Your task to perform on an android device: toggle location history Image 0: 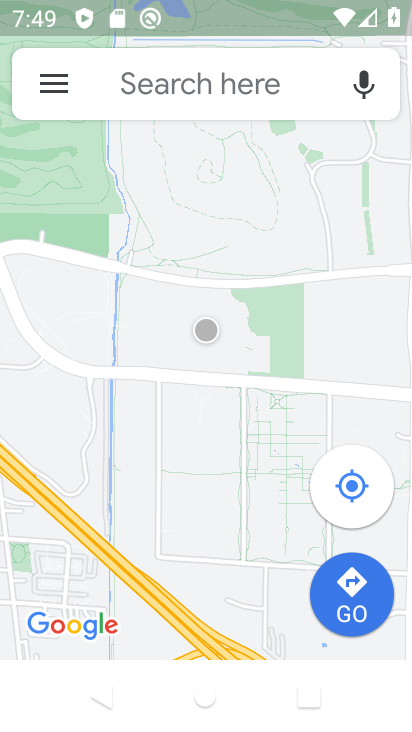
Step 0: press home button
Your task to perform on an android device: toggle location history Image 1: 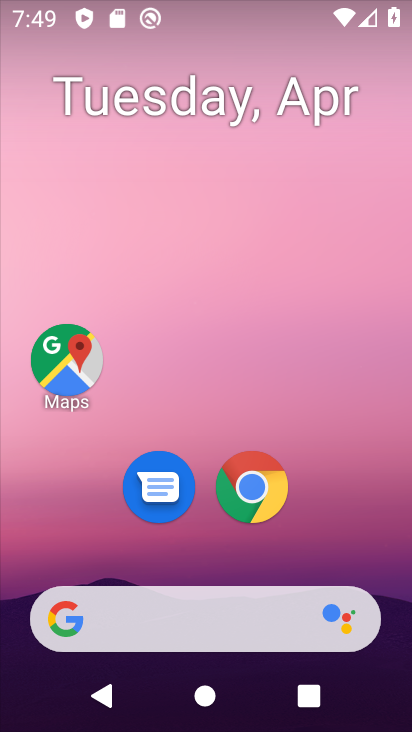
Step 1: drag from (193, 415) to (196, 235)
Your task to perform on an android device: toggle location history Image 2: 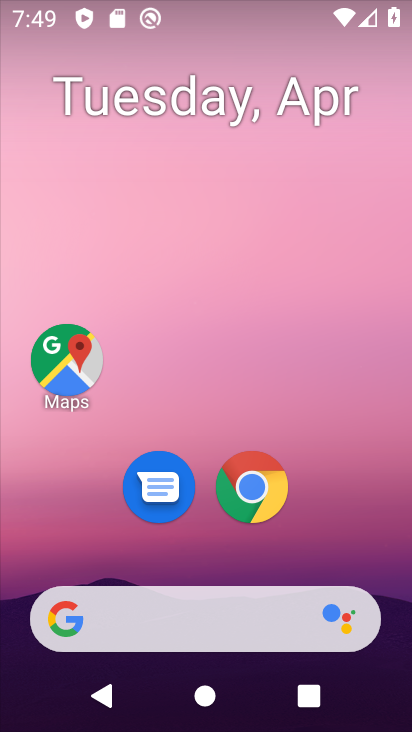
Step 2: drag from (202, 585) to (201, 112)
Your task to perform on an android device: toggle location history Image 3: 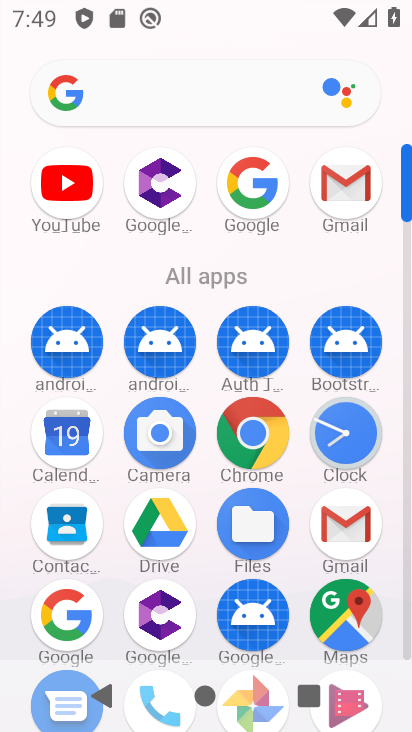
Step 3: drag from (198, 604) to (202, 307)
Your task to perform on an android device: toggle location history Image 4: 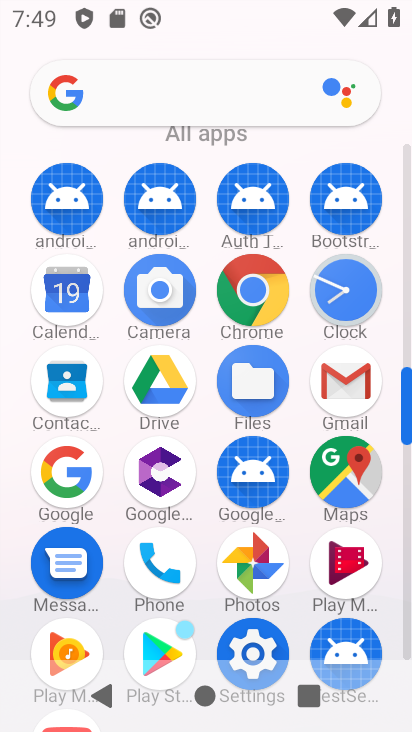
Step 4: click (261, 650)
Your task to perform on an android device: toggle location history Image 5: 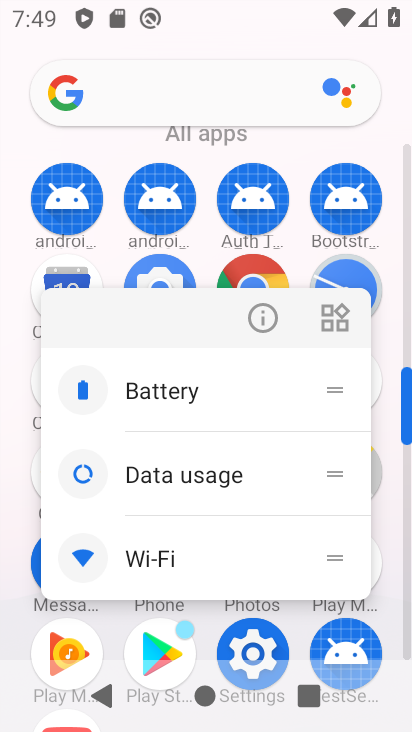
Step 5: click (246, 654)
Your task to perform on an android device: toggle location history Image 6: 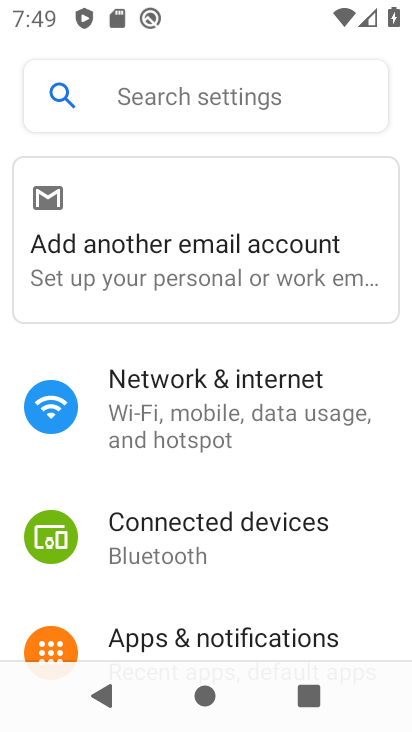
Step 6: drag from (182, 614) to (171, 249)
Your task to perform on an android device: toggle location history Image 7: 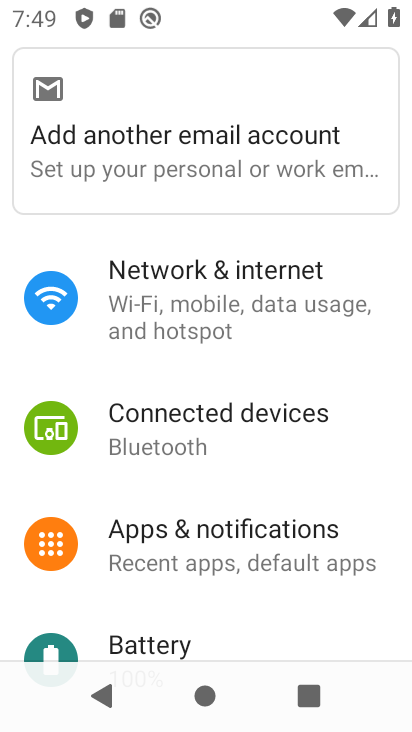
Step 7: drag from (188, 613) to (192, 269)
Your task to perform on an android device: toggle location history Image 8: 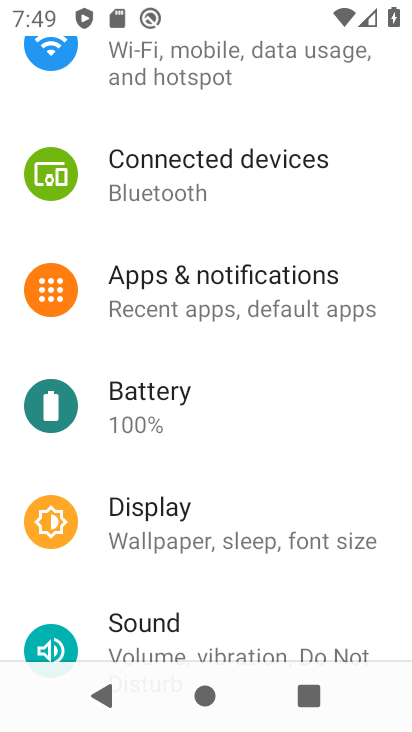
Step 8: drag from (222, 613) to (234, 332)
Your task to perform on an android device: toggle location history Image 9: 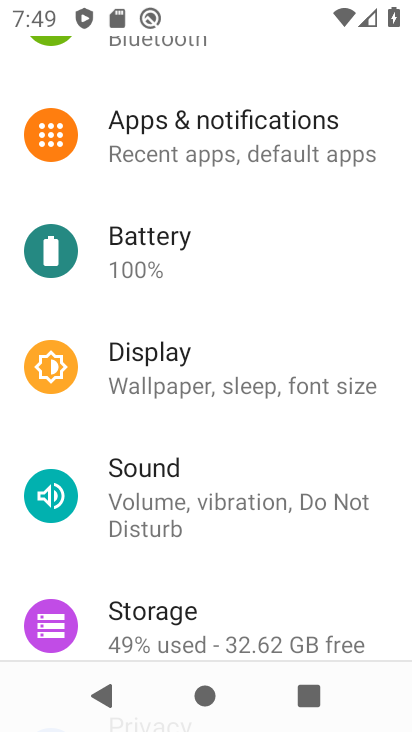
Step 9: drag from (195, 628) to (211, 321)
Your task to perform on an android device: toggle location history Image 10: 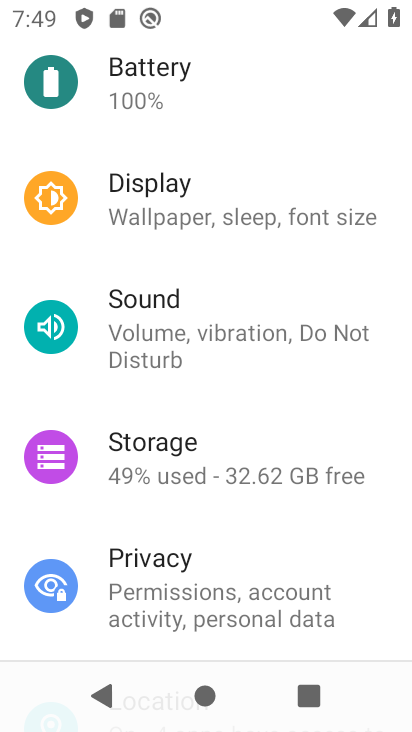
Step 10: drag from (262, 622) to (302, 329)
Your task to perform on an android device: toggle location history Image 11: 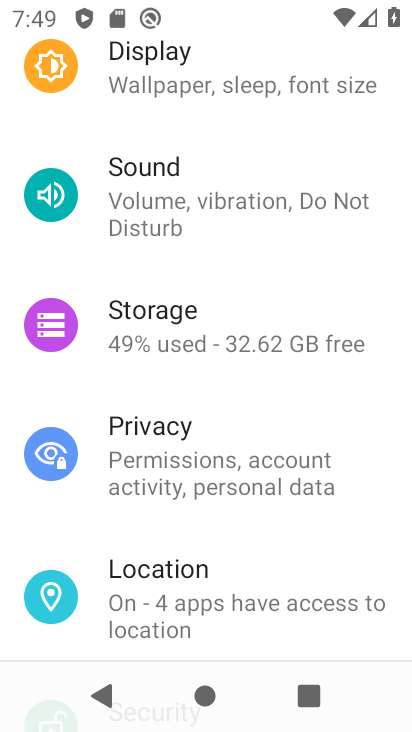
Step 11: click (171, 629)
Your task to perform on an android device: toggle location history Image 12: 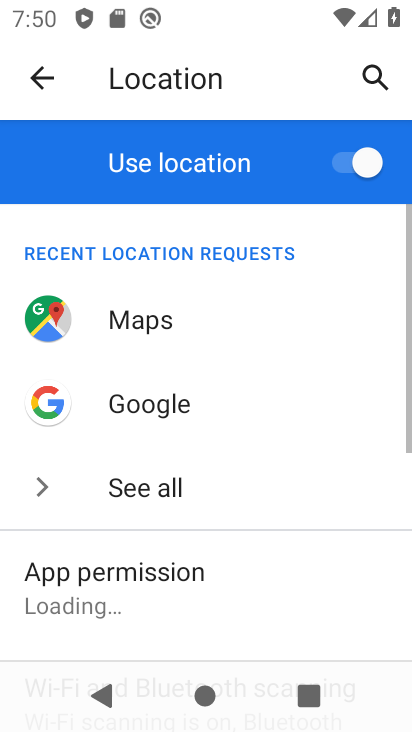
Step 12: drag from (172, 627) to (216, 284)
Your task to perform on an android device: toggle location history Image 13: 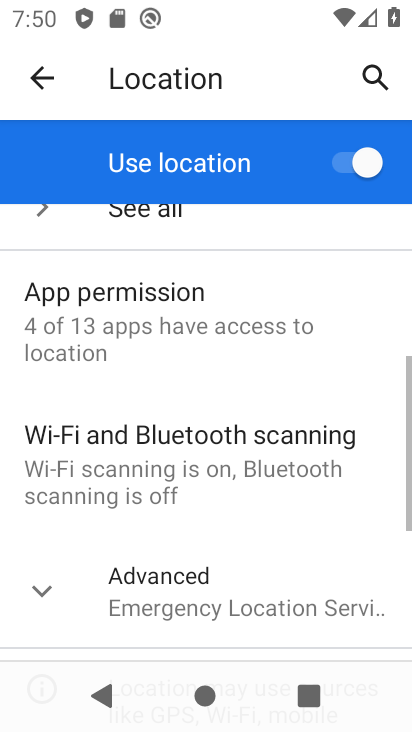
Step 13: click (162, 575)
Your task to perform on an android device: toggle location history Image 14: 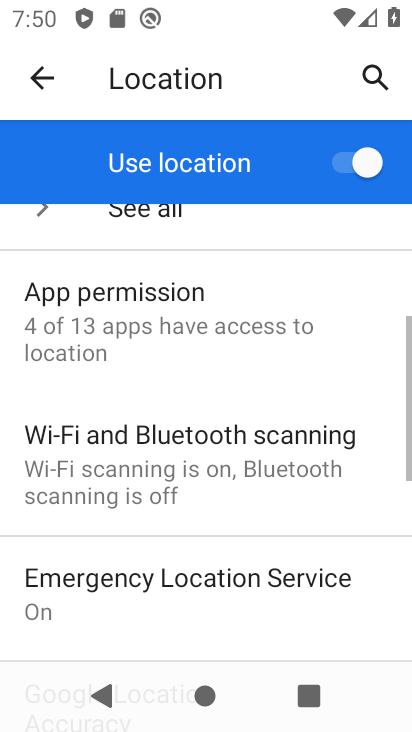
Step 14: drag from (176, 619) to (203, 332)
Your task to perform on an android device: toggle location history Image 15: 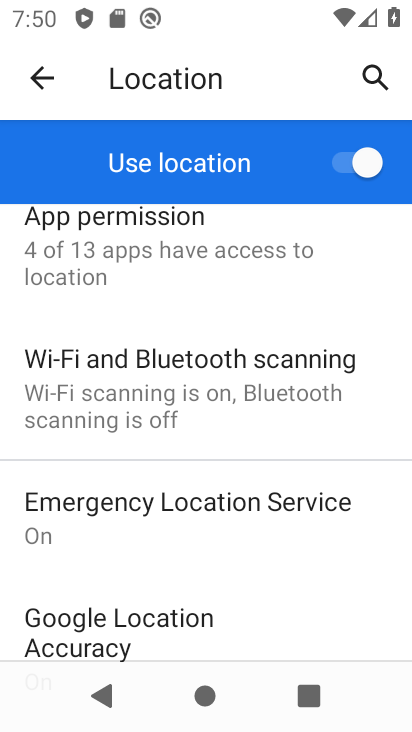
Step 15: drag from (190, 638) to (225, 370)
Your task to perform on an android device: toggle location history Image 16: 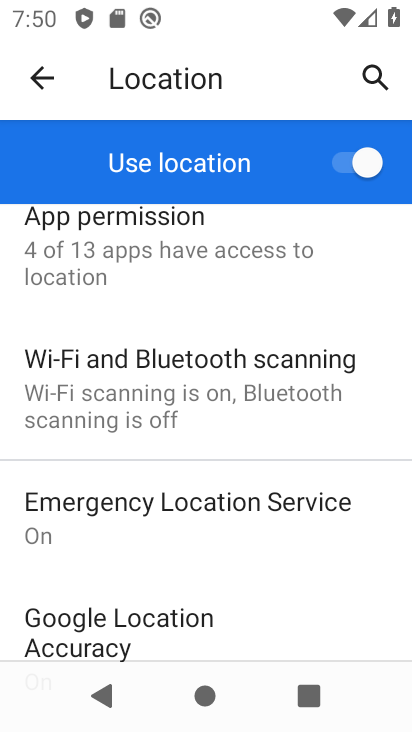
Step 16: drag from (195, 636) to (235, 344)
Your task to perform on an android device: toggle location history Image 17: 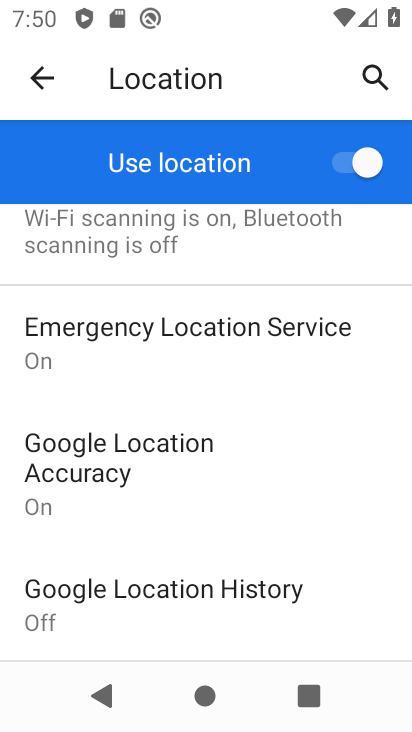
Step 17: click (51, 601)
Your task to perform on an android device: toggle location history Image 18: 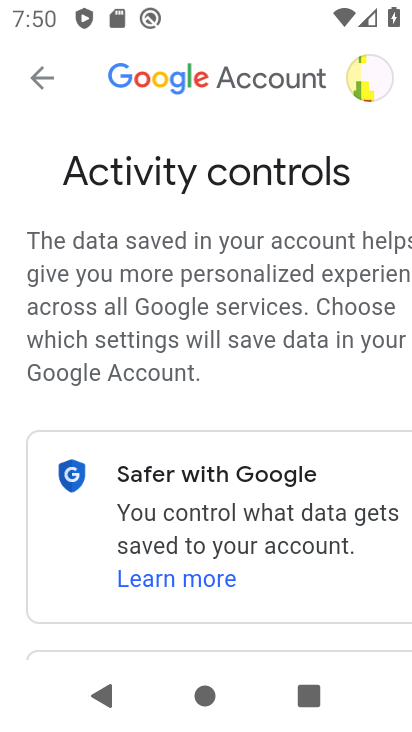
Step 18: drag from (229, 582) to (277, 309)
Your task to perform on an android device: toggle location history Image 19: 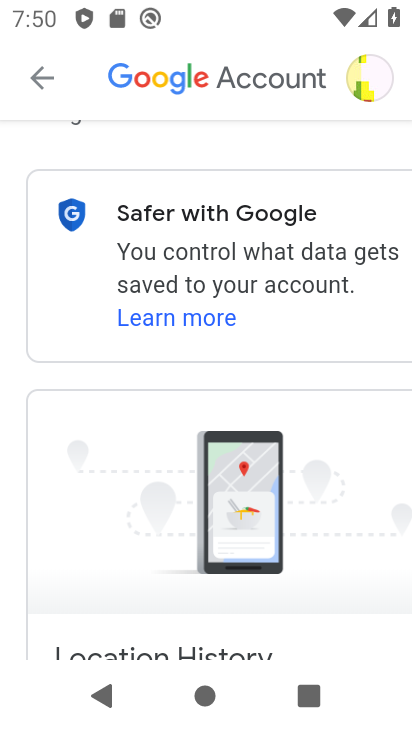
Step 19: drag from (289, 620) to (317, 328)
Your task to perform on an android device: toggle location history Image 20: 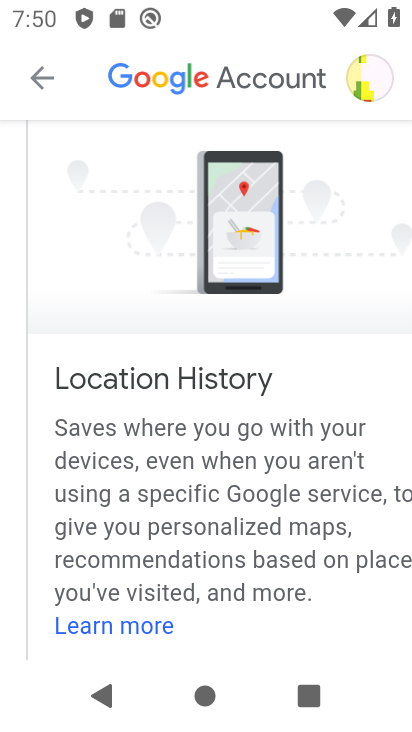
Step 20: drag from (283, 612) to (283, 312)
Your task to perform on an android device: toggle location history Image 21: 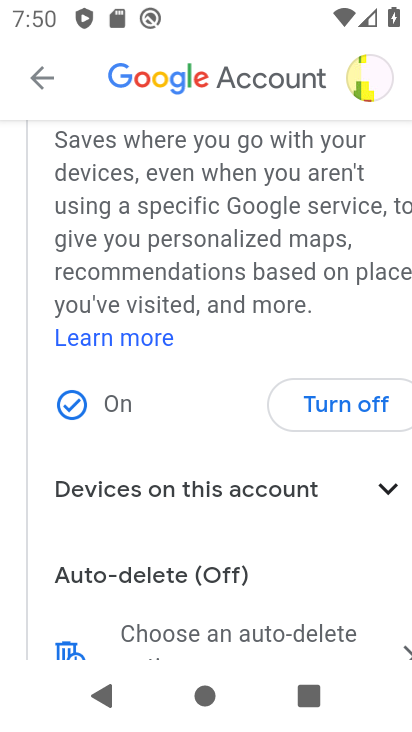
Step 21: click (320, 410)
Your task to perform on an android device: toggle location history Image 22: 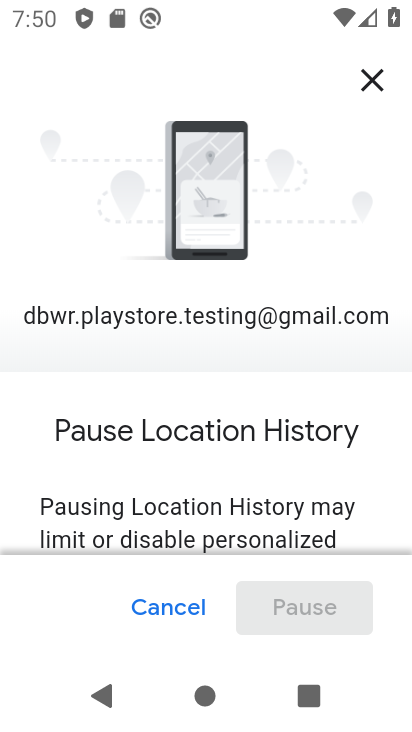
Step 22: drag from (227, 506) to (249, 202)
Your task to perform on an android device: toggle location history Image 23: 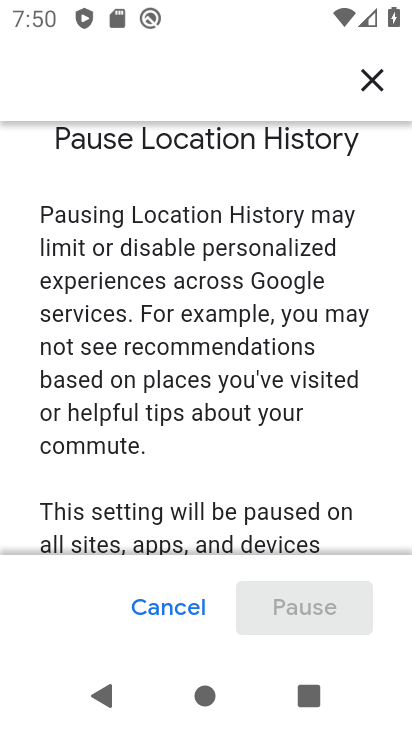
Step 23: drag from (229, 422) to (229, 241)
Your task to perform on an android device: toggle location history Image 24: 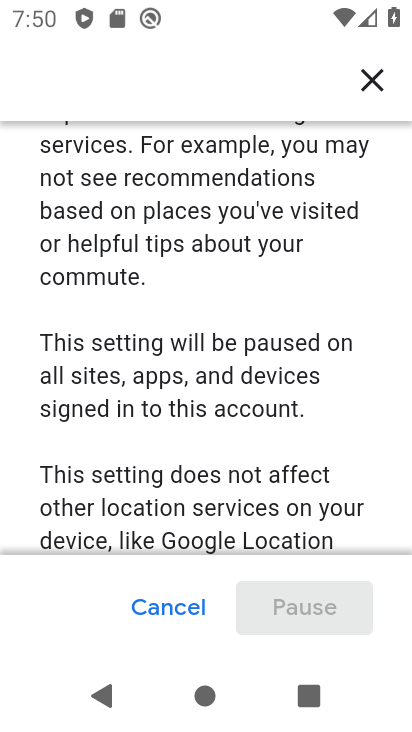
Step 24: drag from (221, 506) to (240, 272)
Your task to perform on an android device: toggle location history Image 25: 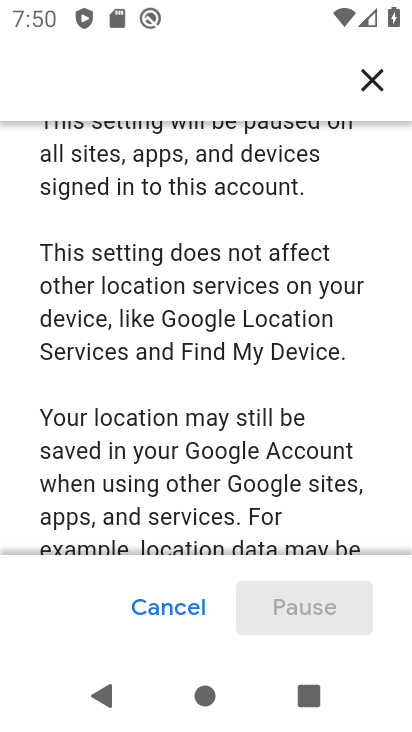
Step 25: drag from (268, 525) to (279, 292)
Your task to perform on an android device: toggle location history Image 26: 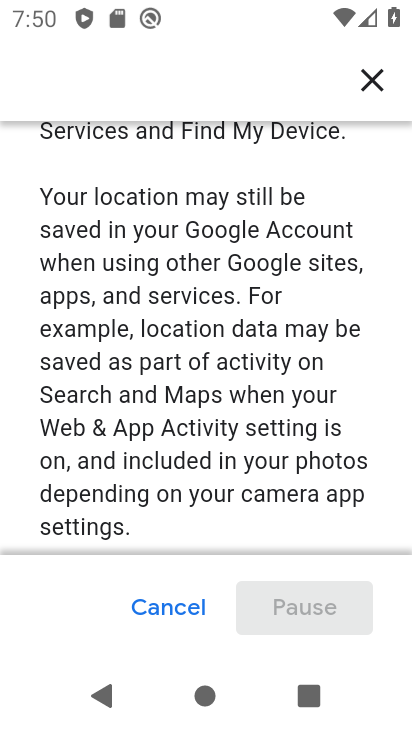
Step 26: drag from (233, 522) to (246, 210)
Your task to perform on an android device: toggle location history Image 27: 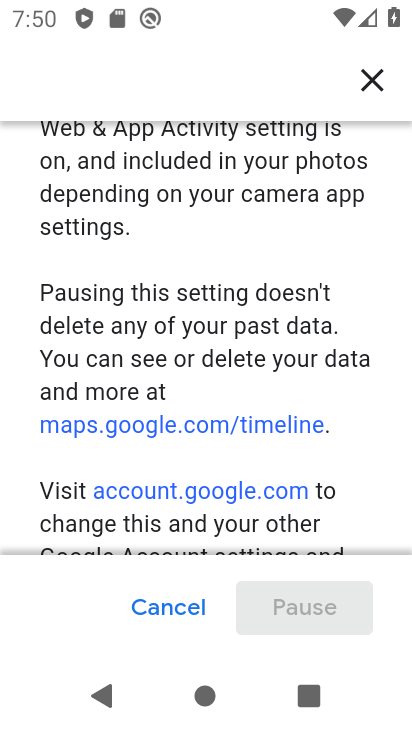
Step 27: drag from (227, 486) to (252, 259)
Your task to perform on an android device: toggle location history Image 28: 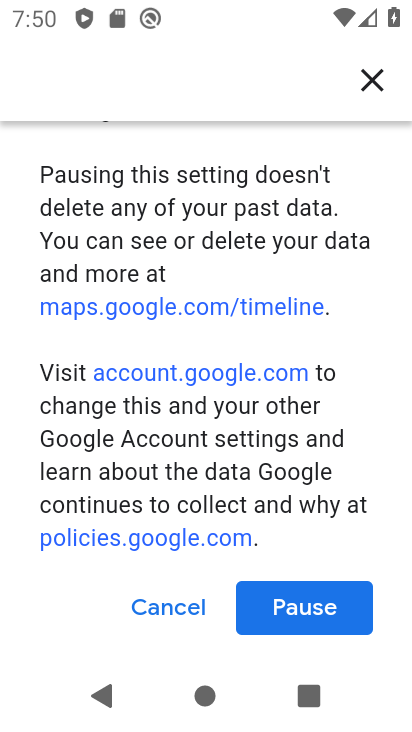
Step 28: click (270, 614)
Your task to perform on an android device: toggle location history Image 29: 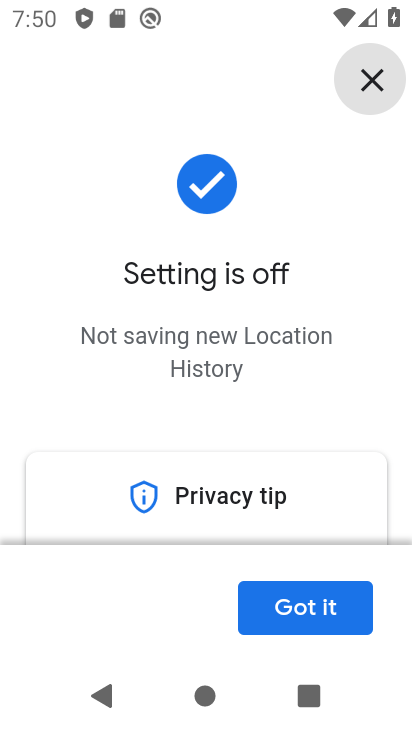
Step 29: click (270, 614)
Your task to perform on an android device: toggle location history Image 30: 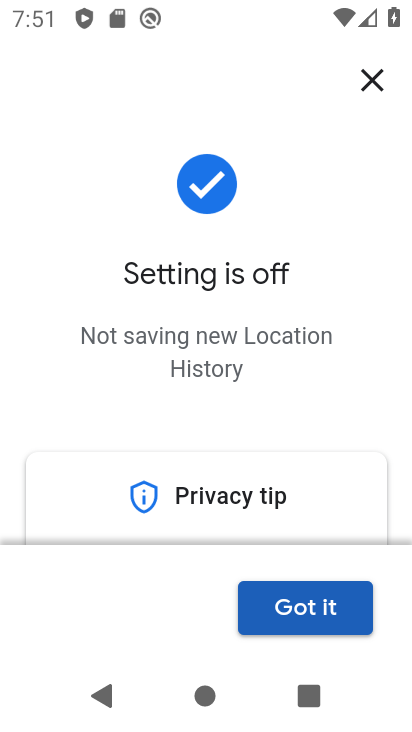
Step 30: click (297, 613)
Your task to perform on an android device: toggle location history Image 31: 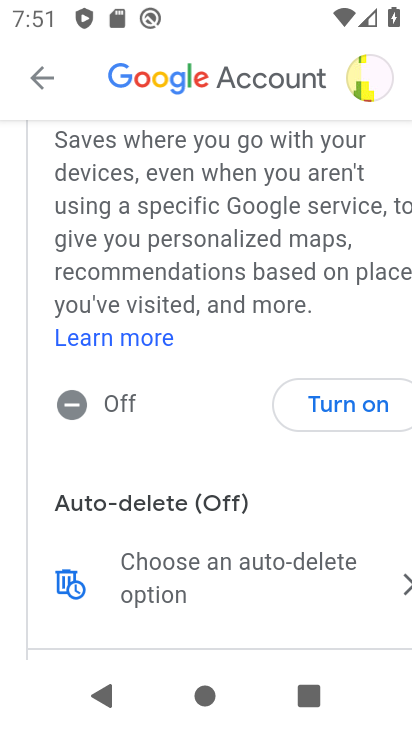
Step 31: task complete